Your task to perform on an android device: see sites visited before in the chrome app Image 0: 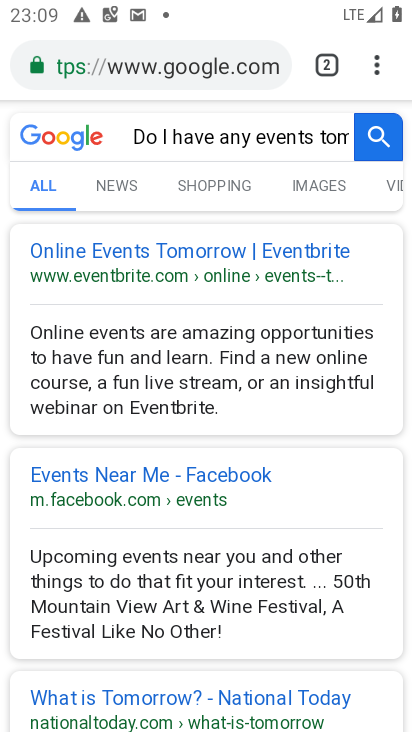
Step 0: click (384, 52)
Your task to perform on an android device: see sites visited before in the chrome app Image 1: 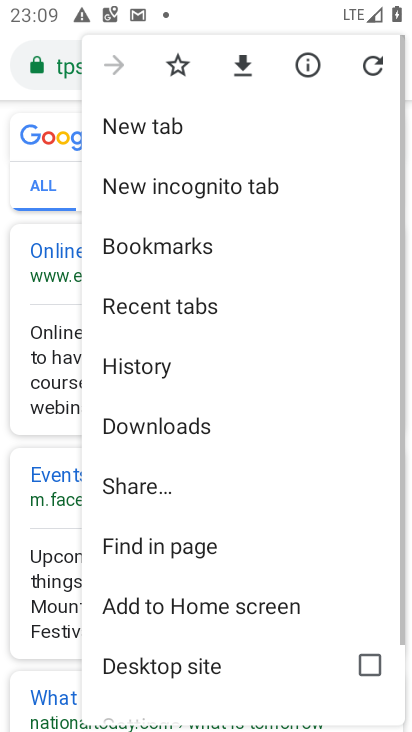
Step 1: click (178, 373)
Your task to perform on an android device: see sites visited before in the chrome app Image 2: 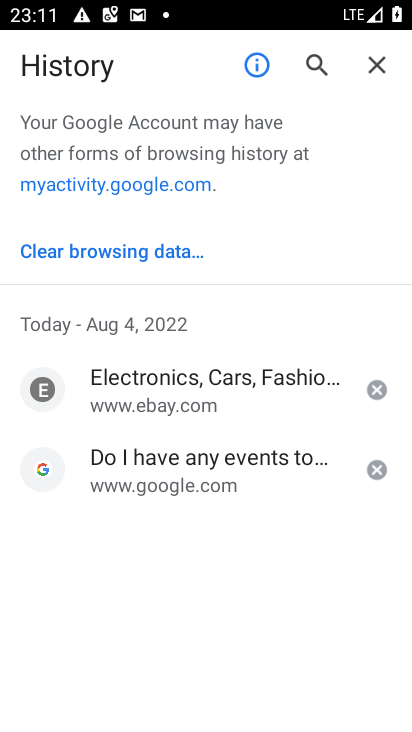
Step 2: task complete